Your task to perform on an android device: see sites visited before in the chrome app Image 0: 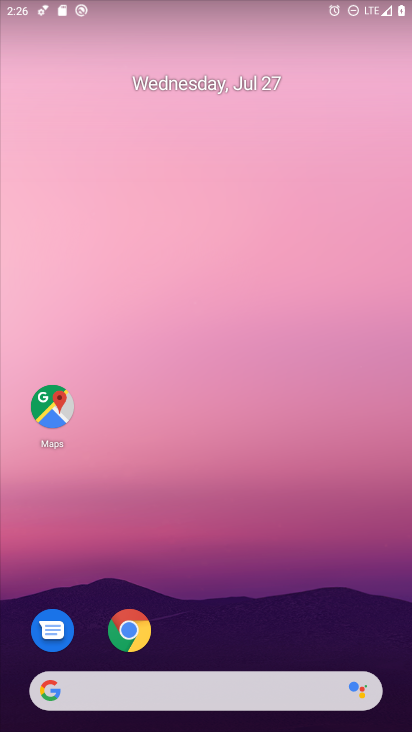
Step 0: click (130, 628)
Your task to perform on an android device: see sites visited before in the chrome app Image 1: 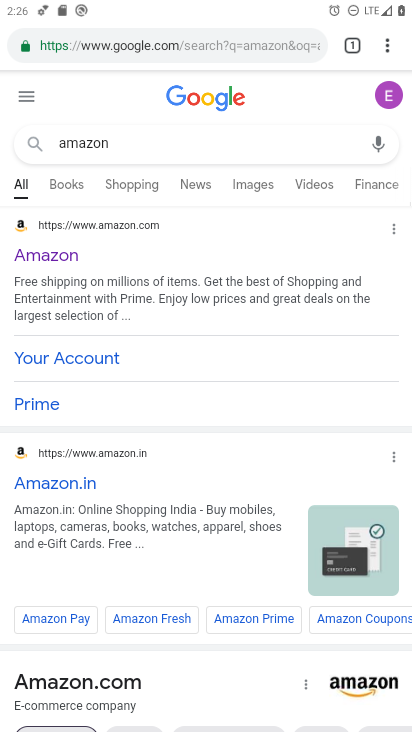
Step 1: click (389, 50)
Your task to perform on an android device: see sites visited before in the chrome app Image 2: 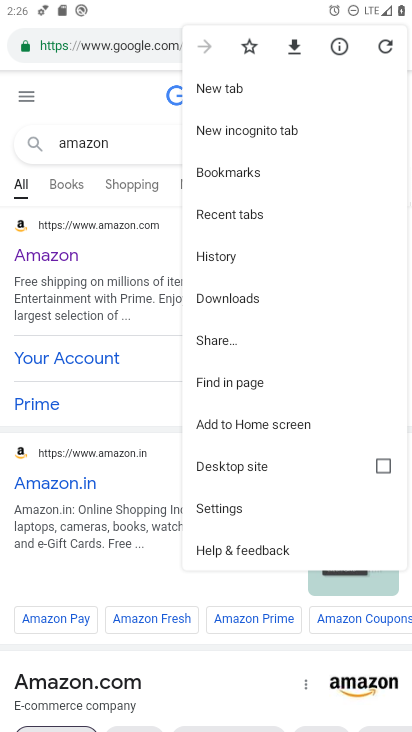
Step 2: click (213, 260)
Your task to perform on an android device: see sites visited before in the chrome app Image 3: 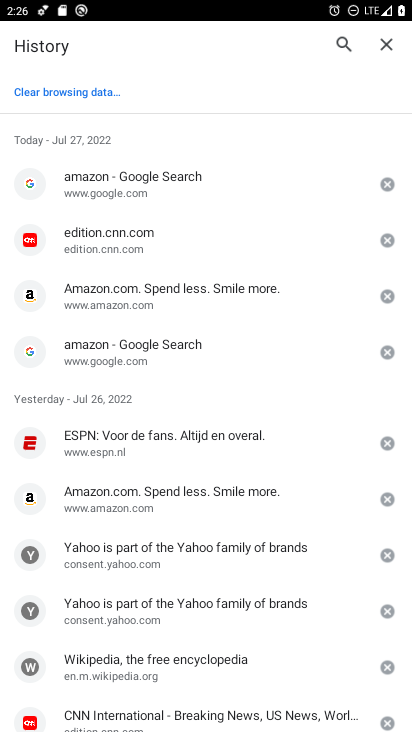
Step 3: task complete